Your task to perform on an android device: change the clock display to analog Image 0: 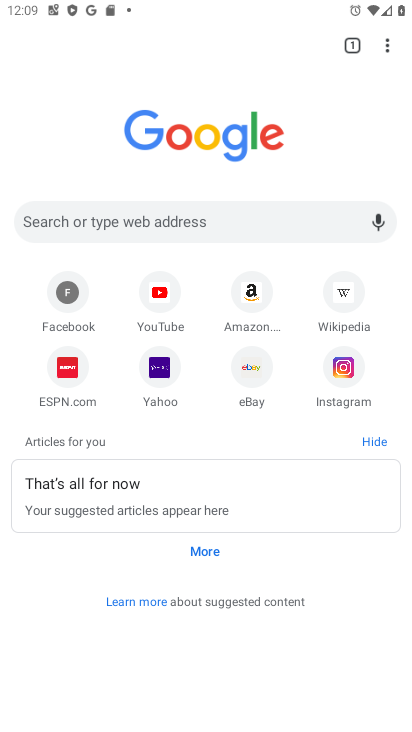
Step 0: press home button
Your task to perform on an android device: change the clock display to analog Image 1: 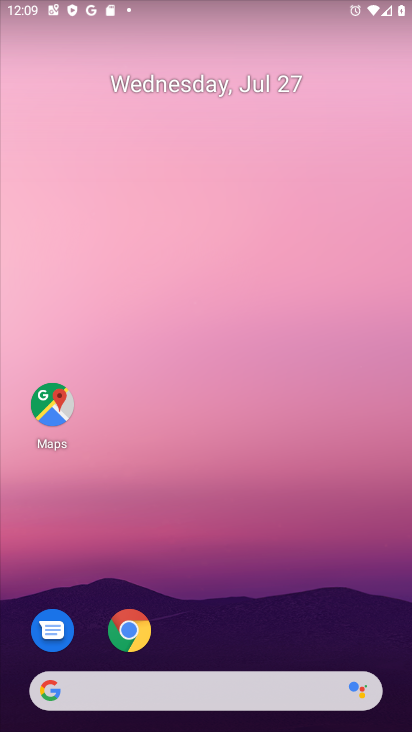
Step 1: drag from (231, 722) to (260, 175)
Your task to perform on an android device: change the clock display to analog Image 2: 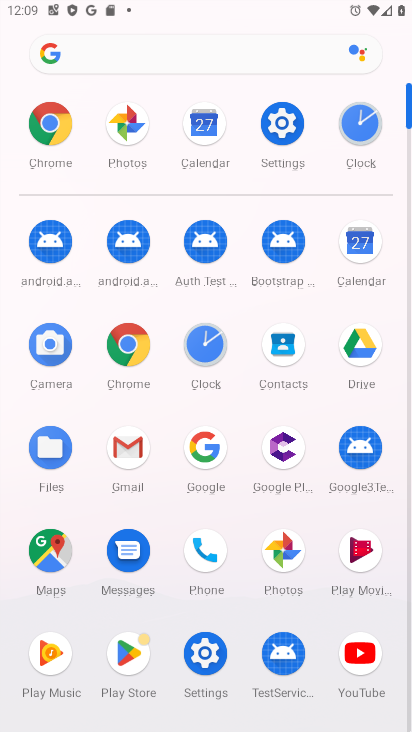
Step 2: click (210, 345)
Your task to perform on an android device: change the clock display to analog Image 3: 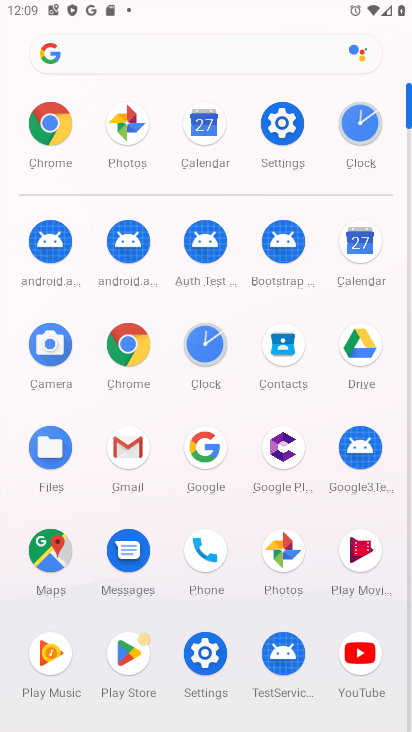
Step 3: click (210, 345)
Your task to perform on an android device: change the clock display to analog Image 4: 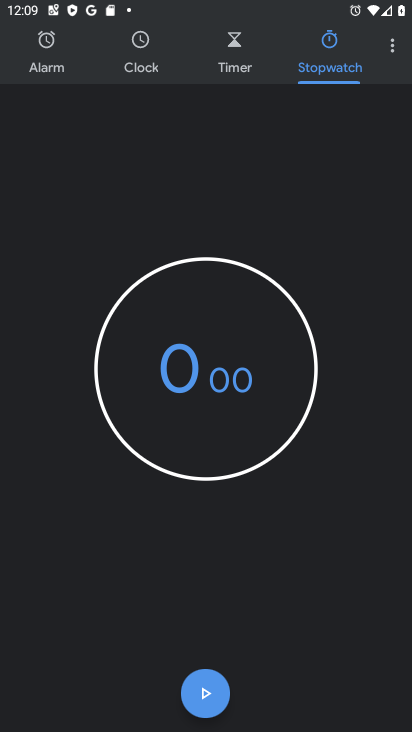
Step 4: click (400, 50)
Your task to perform on an android device: change the clock display to analog Image 5: 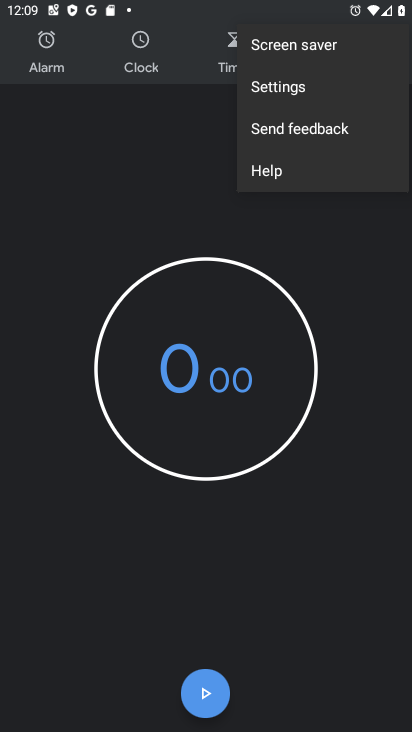
Step 5: click (311, 88)
Your task to perform on an android device: change the clock display to analog Image 6: 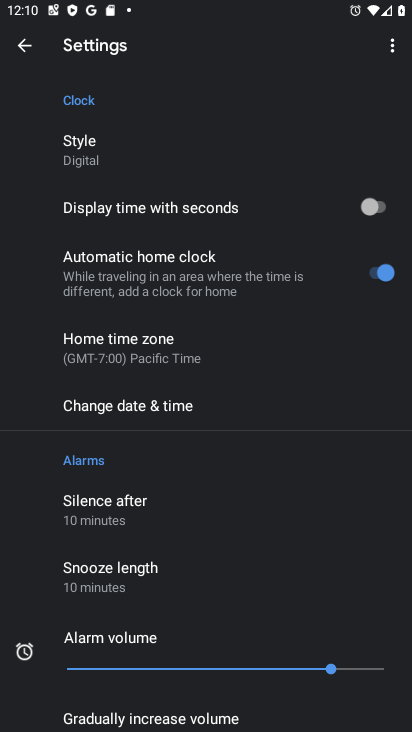
Step 6: click (81, 144)
Your task to perform on an android device: change the clock display to analog Image 7: 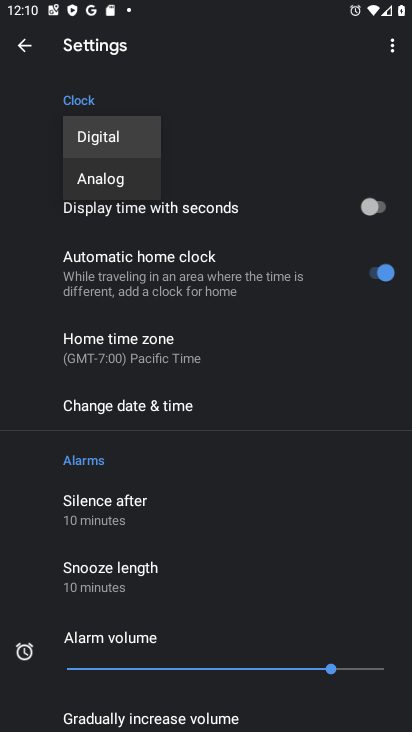
Step 7: click (119, 186)
Your task to perform on an android device: change the clock display to analog Image 8: 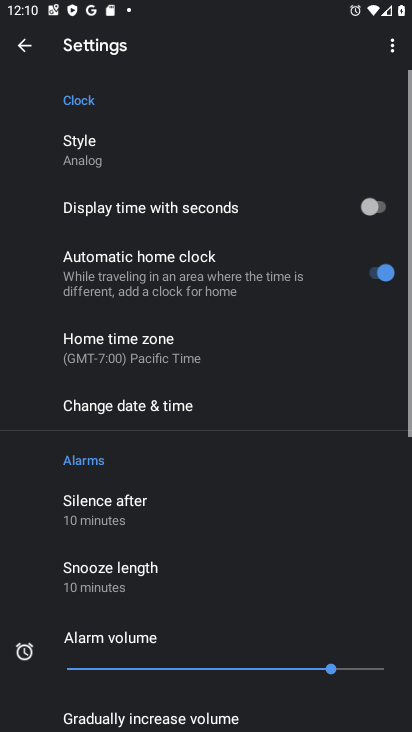
Step 8: task complete